Your task to perform on an android device: Search for hotels in Sydney Image 0: 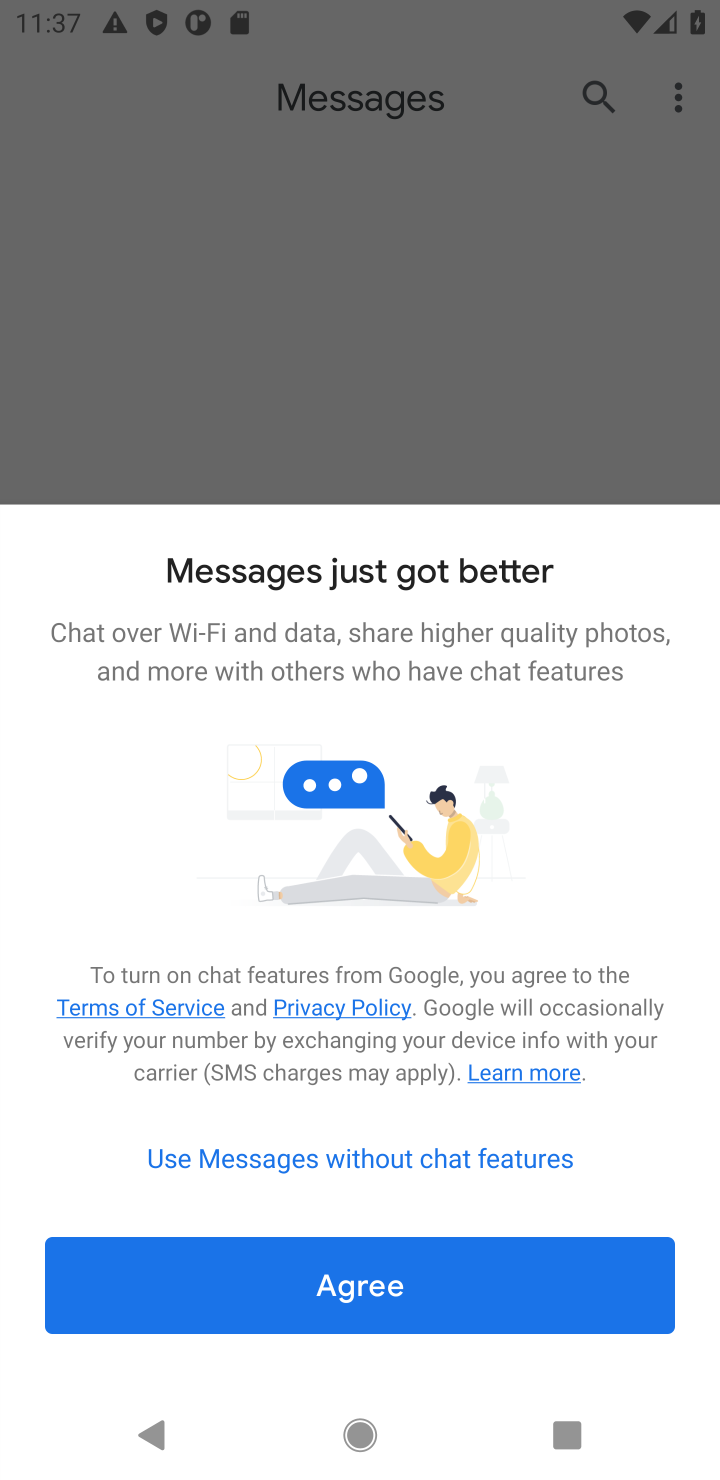
Step 0: press home button
Your task to perform on an android device: Search for hotels in Sydney Image 1: 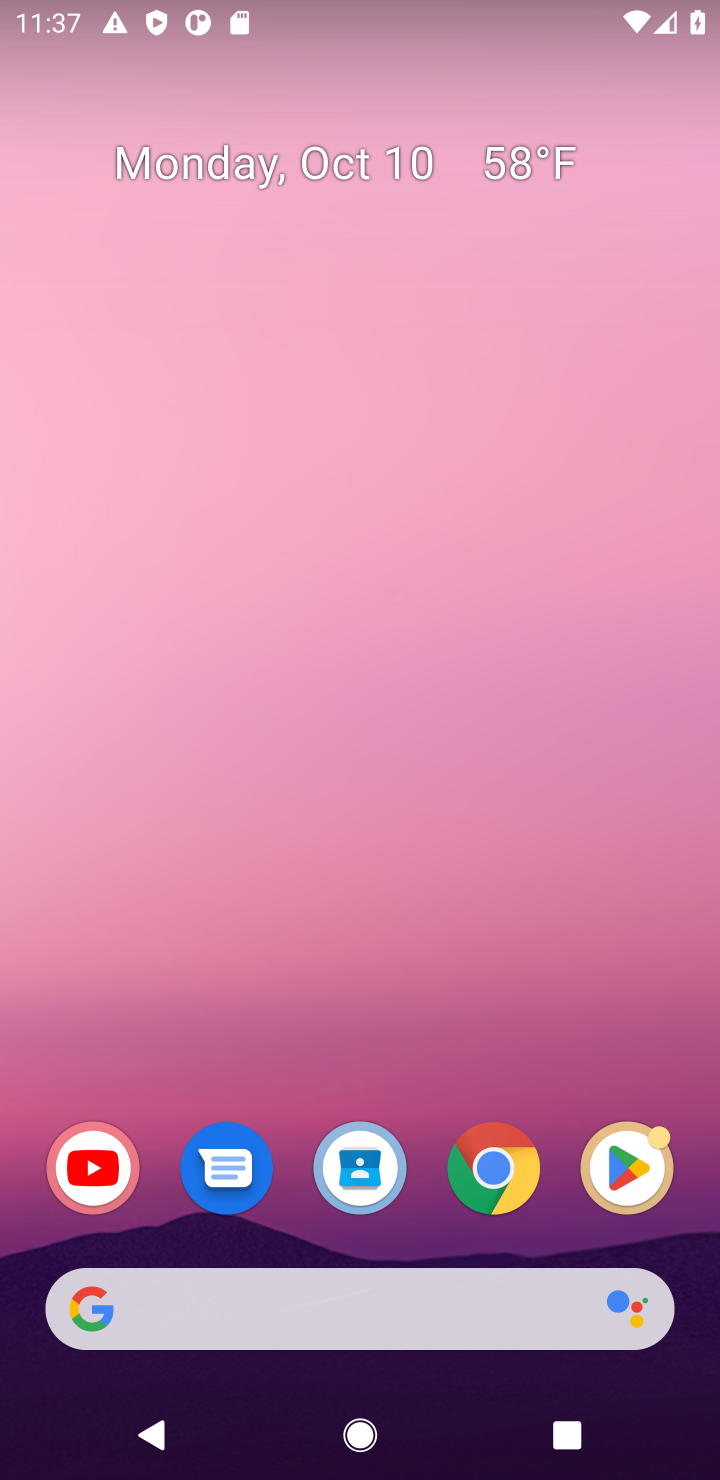
Step 1: click (327, 1306)
Your task to perform on an android device: Search for hotels in Sydney Image 2: 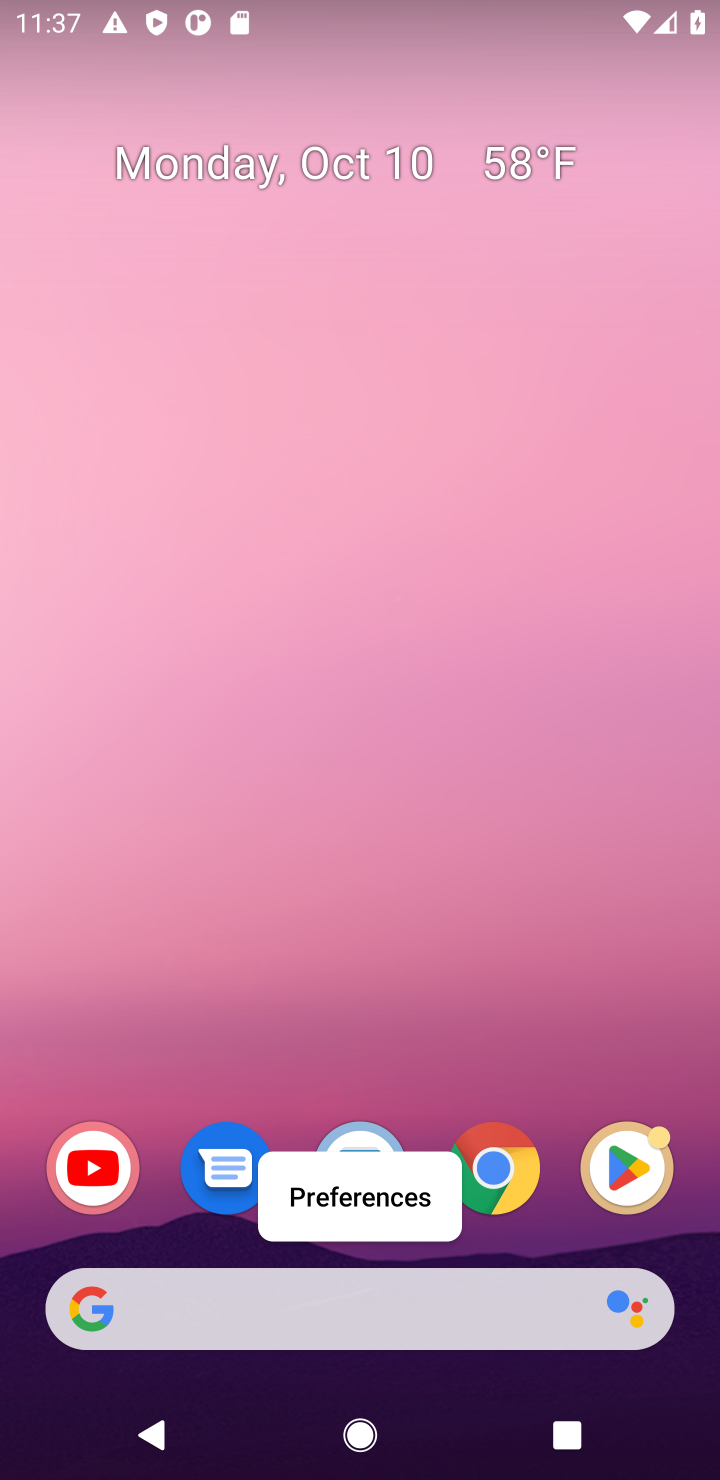
Step 2: click (327, 1306)
Your task to perform on an android device: Search for hotels in Sydney Image 3: 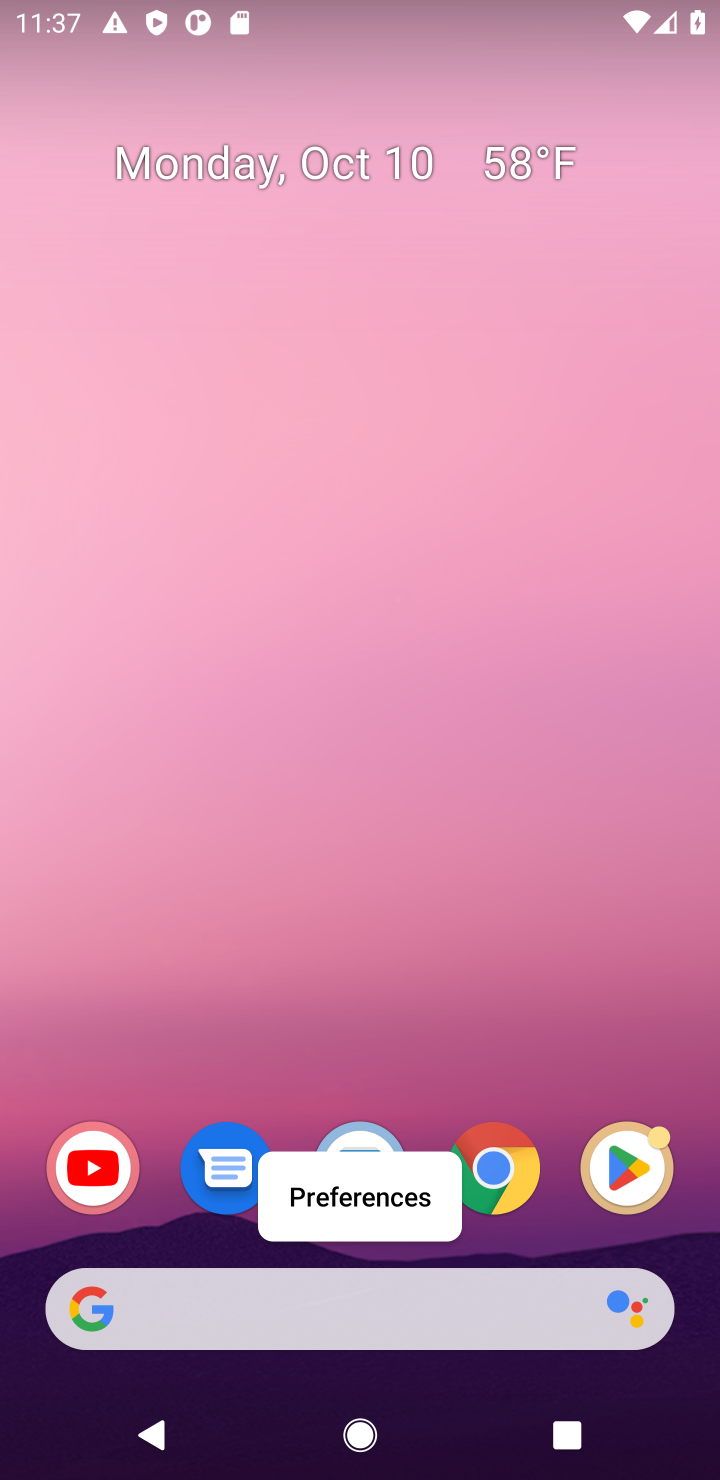
Step 3: click (327, 1306)
Your task to perform on an android device: Search for hotels in Sydney Image 4: 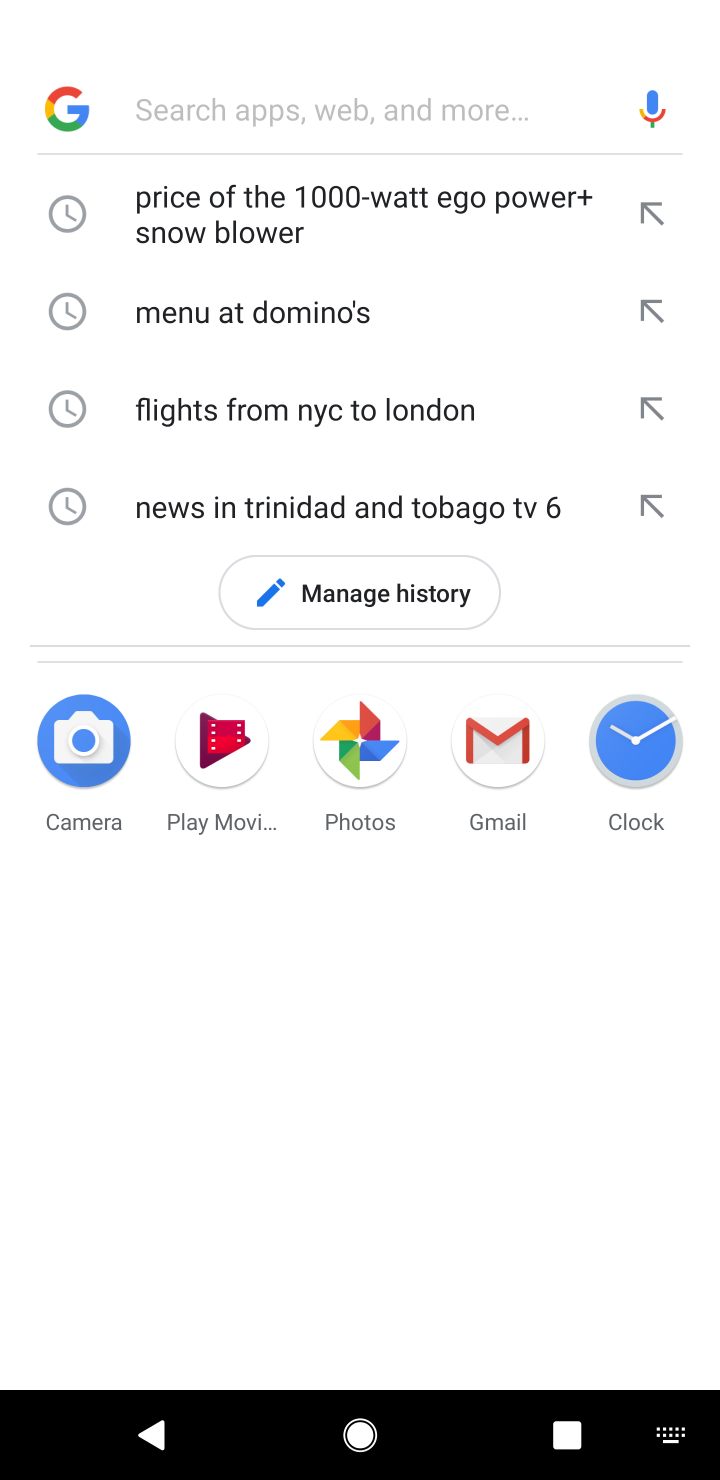
Step 4: type "hotels in Sydney"
Your task to perform on an android device: Search for hotels in Sydney Image 5: 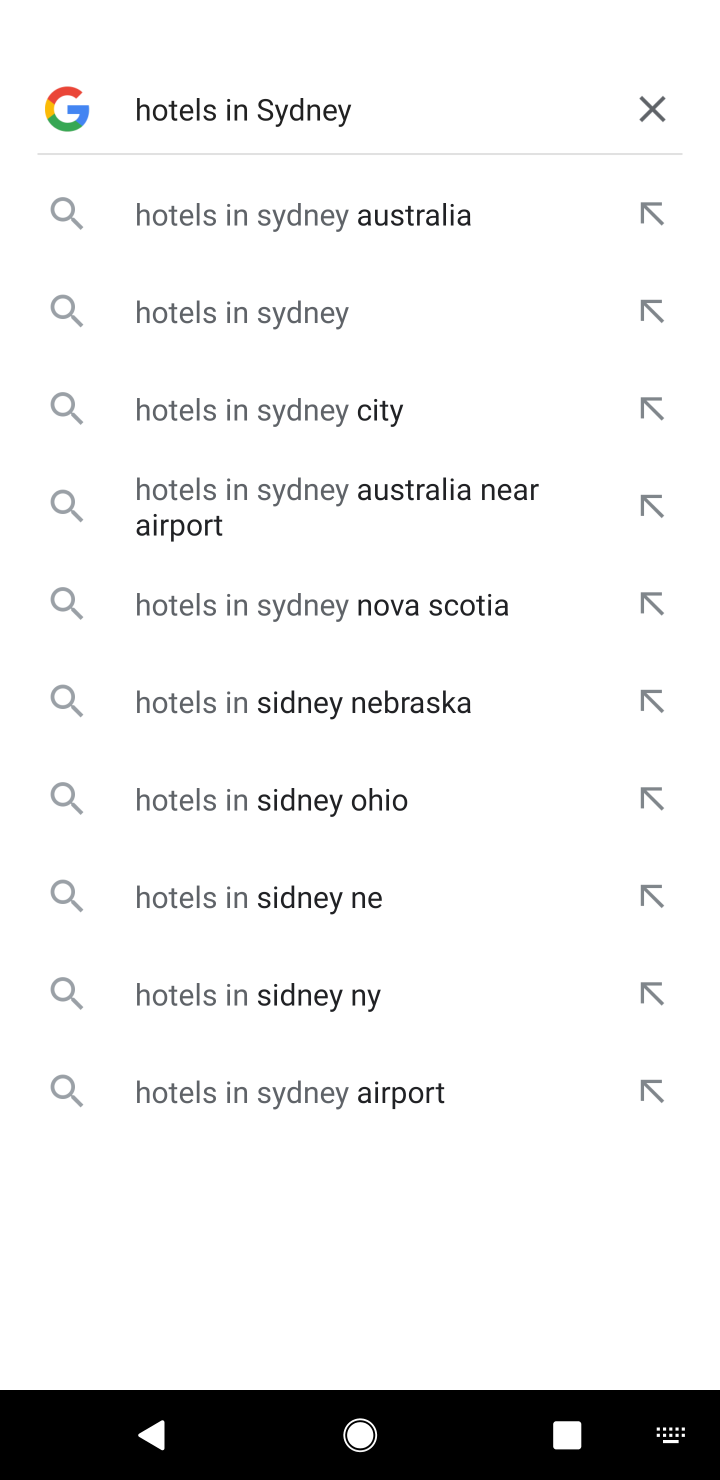
Step 5: type ""
Your task to perform on an android device: Search for hotels in Sydney Image 6: 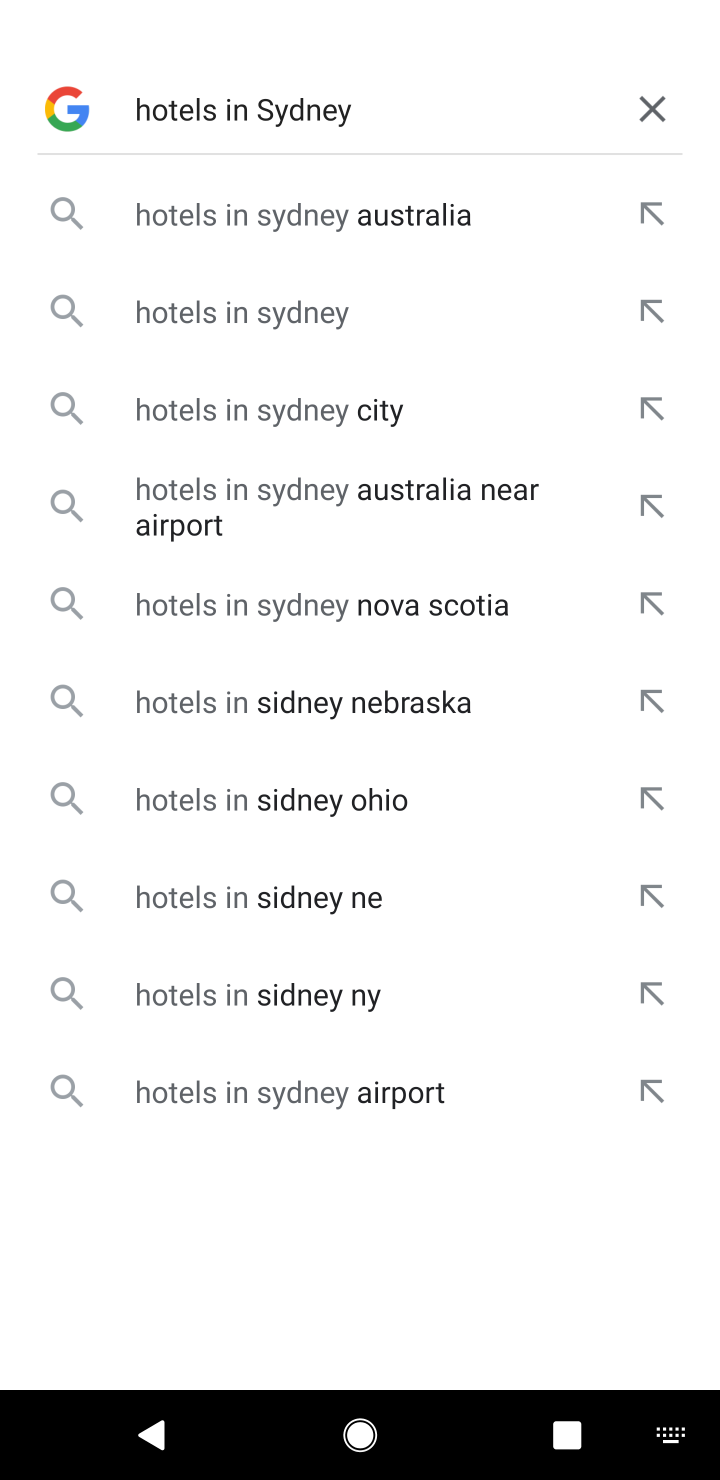
Step 6: click (319, 305)
Your task to perform on an android device: Search for hotels in Sydney Image 7: 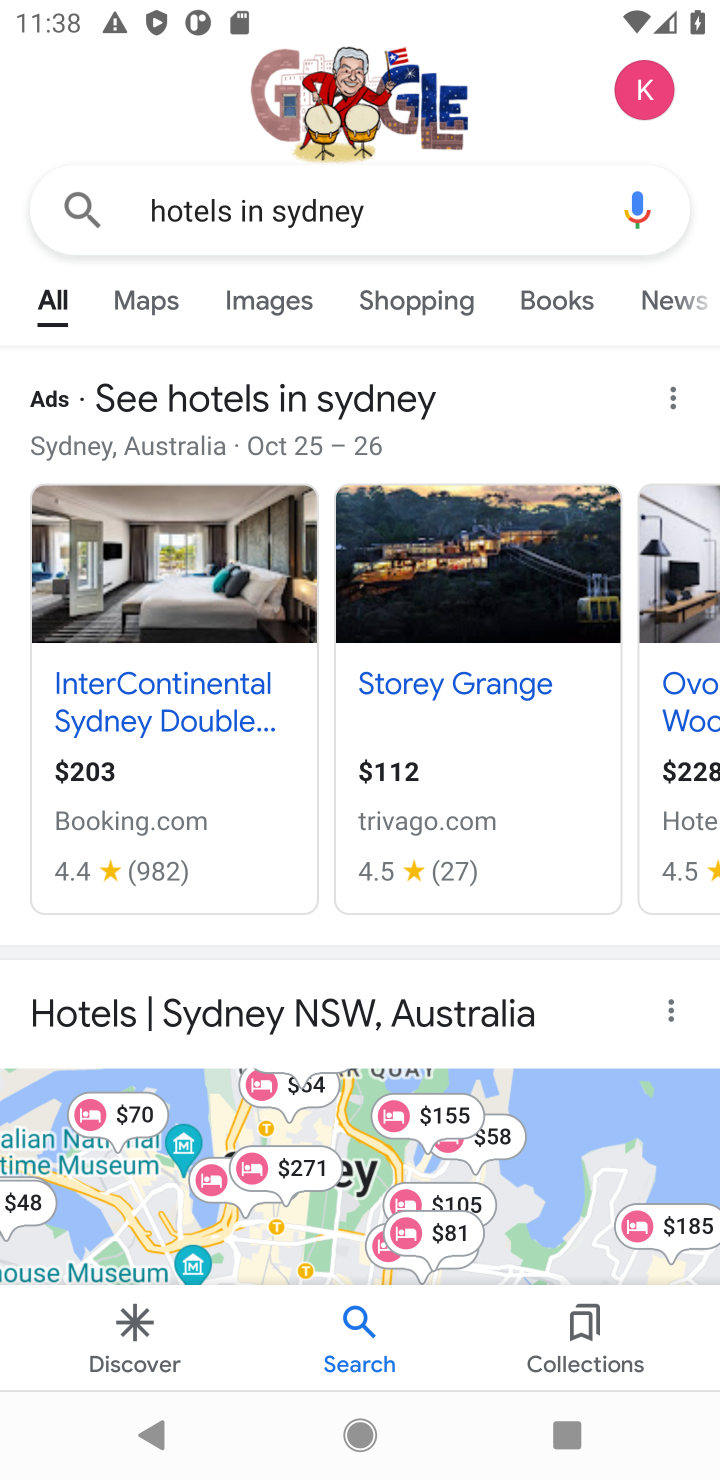
Step 7: task complete